Your task to perform on an android device: Open calendar and show me the first week of next month Image 0: 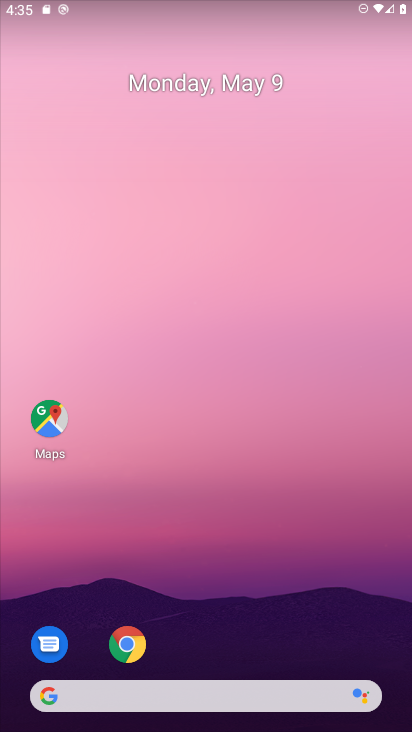
Step 0: drag from (248, 540) to (231, 183)
Your task to perform on an android device: Open calendar and show me the first week of next month Image 1: 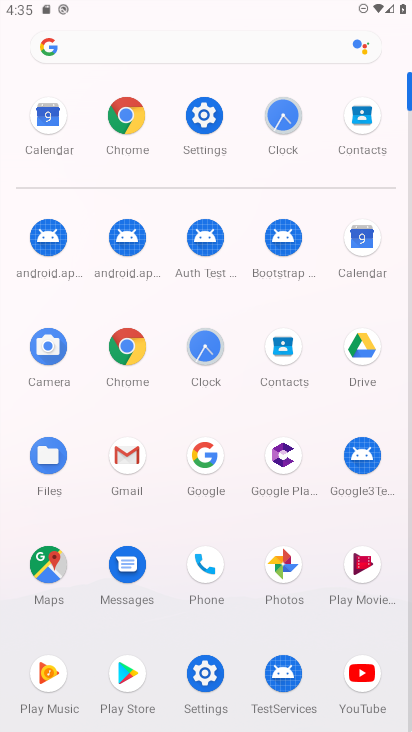
Step 1: click (359, 252)
Your task to perform on an android device: Open calendar and show me the first week of next month Image 2: 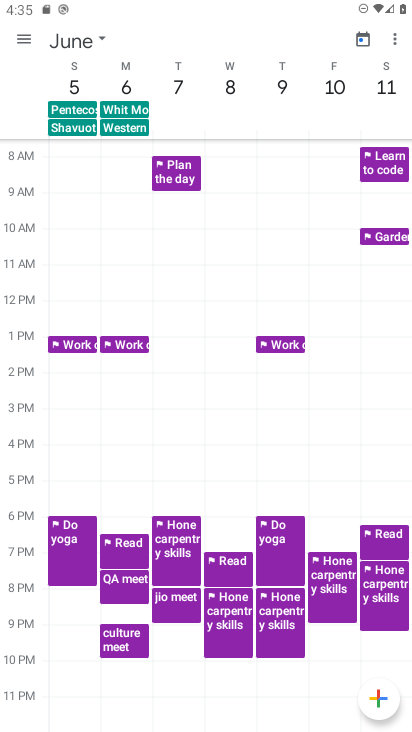
Step 2: click (101, 36)
Your task to perform on an android device: Open calendar and show me the first week of next month Image 3: 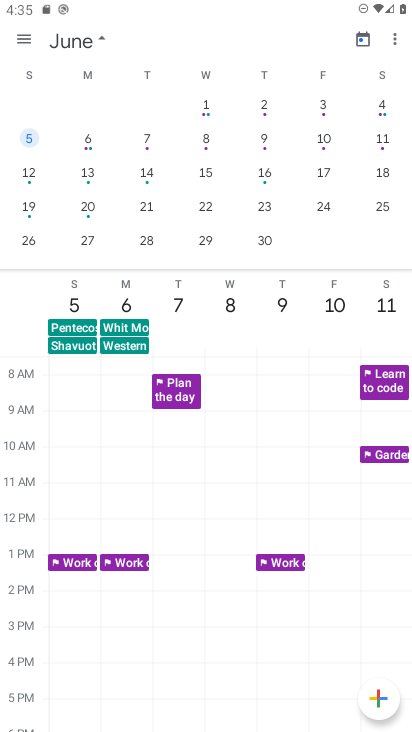
Step 3: click (205, 101)
Your task to perform on an android device: Open calendar and show me the first week of next month Image 4: 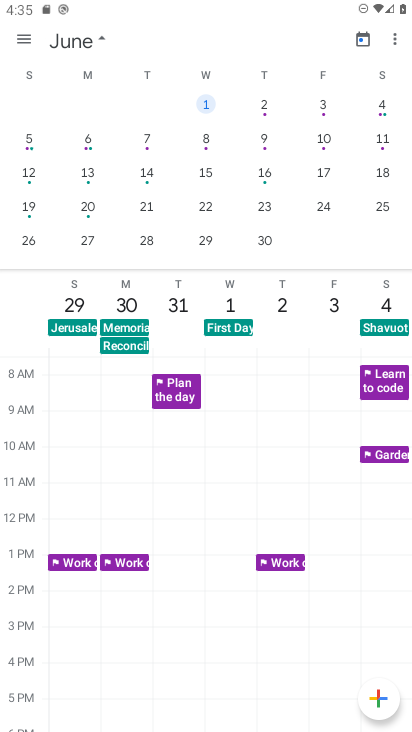
Step 4: click (22, 37)
Your task to perform on an android device: Open calendar and show me the first week of next month Image 5: 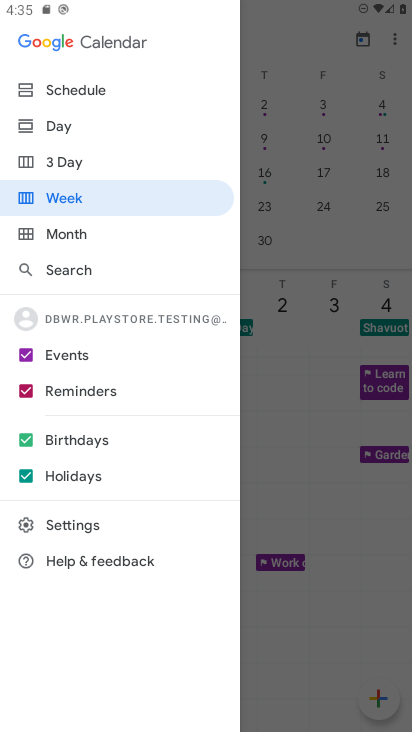
Step 5: click (75, 196)
Your task to perform on an android device: Open calendar and show me the first week of next month Image 6: 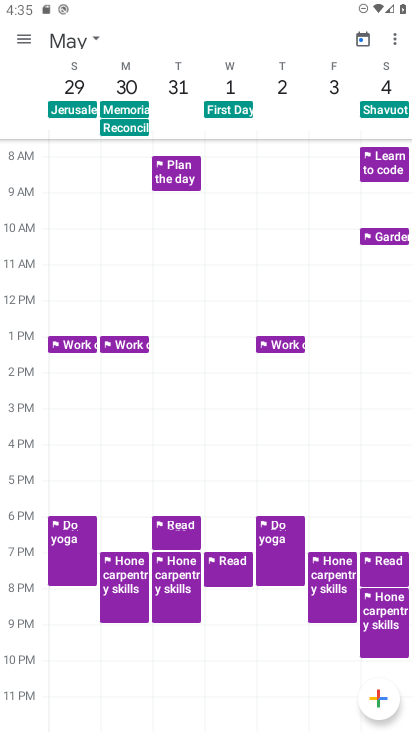
Step 6: task complete